Your task to perform on an android device: change notifications settings Image 0: 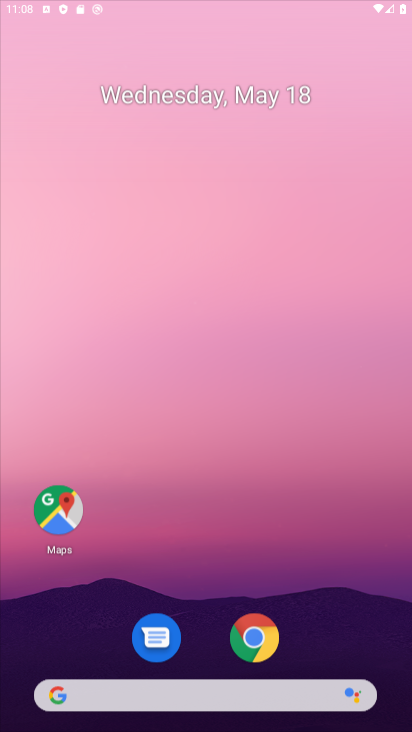
Step 0: click (287, 126)
Your task to perform on an android device: change notifications settings Image 1: 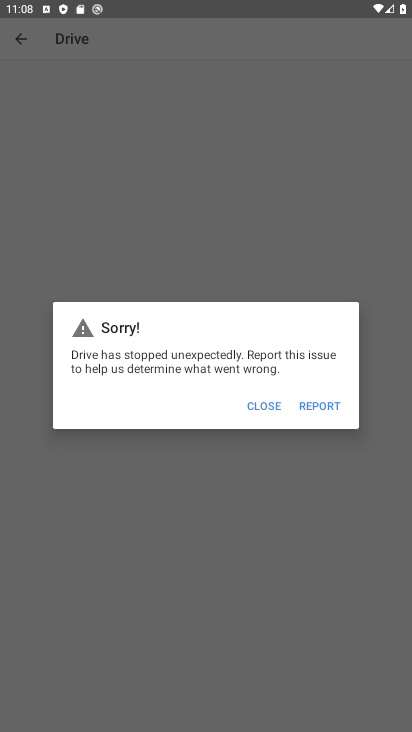
Step 1: press home button
Your task to perform on an android device: change notifications settings Image 2: 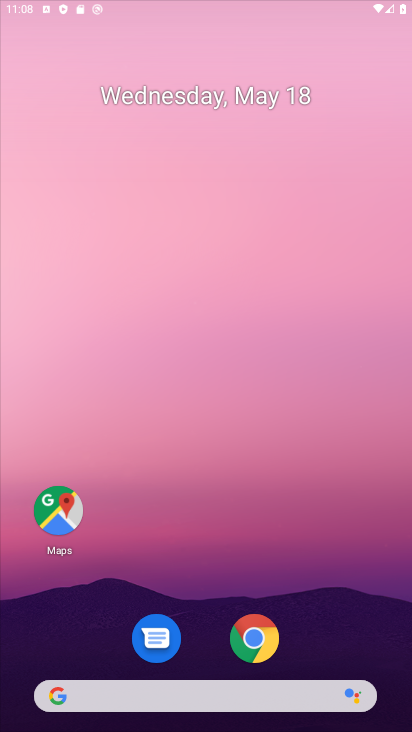
Step 2: drag from (379, 631) to (296, 166)
Your task to perform on an android device: change notifications settings Image 3: 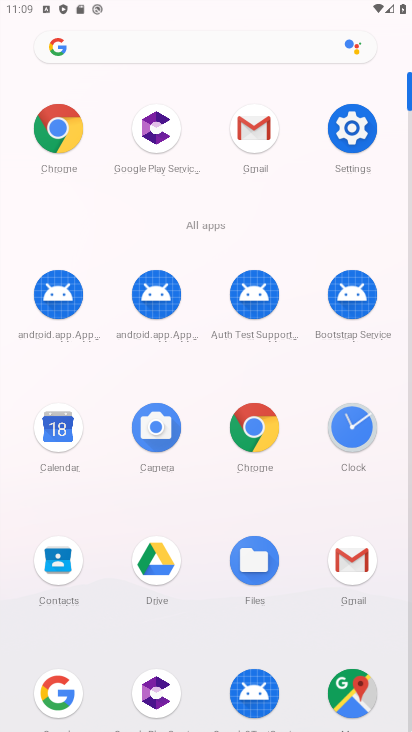
Step 3: click (351, 132)
Your task to perform on an android device: change notifications settings Image 4: 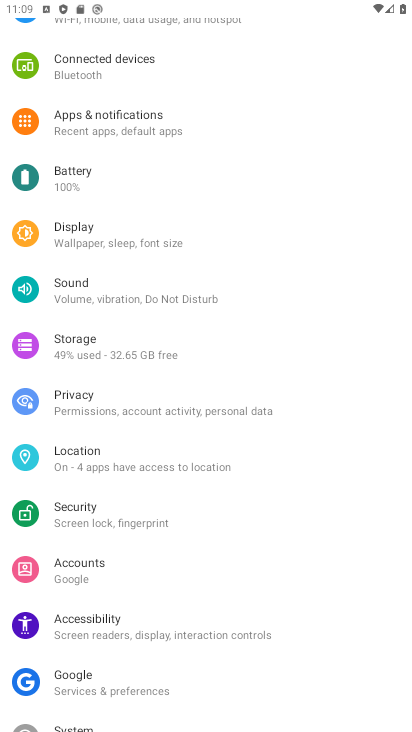
Step 4: click (174, 137)
Your task to perform on an android device: change notifications settings Image 5: 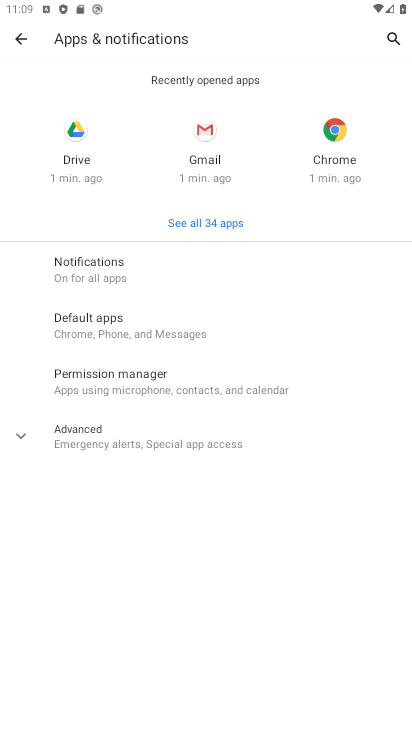
Step 5: task complete